Your task to perform on an android device: Open Yahoo.com Image 0: 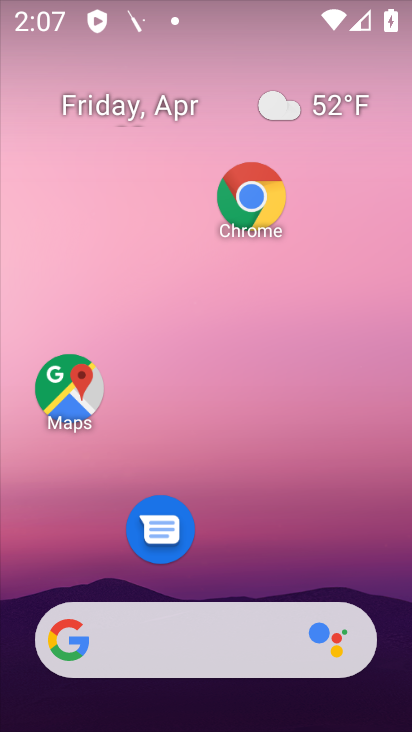
Step 0: click (252, 216)
Your task to perform on an android device: Open Yahoo.com Image 1: 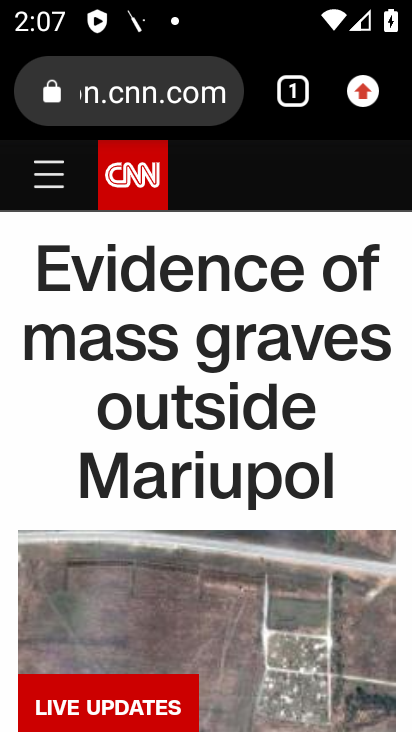
Step 1: click (292, 93)
Your task to perform on an android device: Open Yahoo.com Image 2: 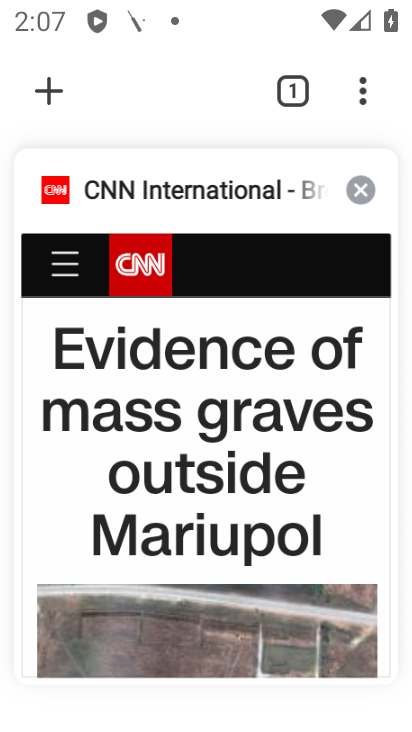
Step 2: click (43, 82)
Your task to perform on an android device: Open Yahoo.com Image 3: 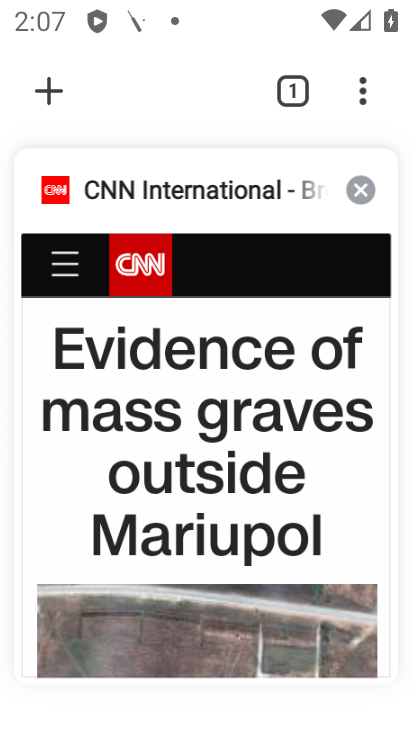
Step 3: click (41, 82)
Your task to perform on an android device: Open Yahoo.com Image 4: 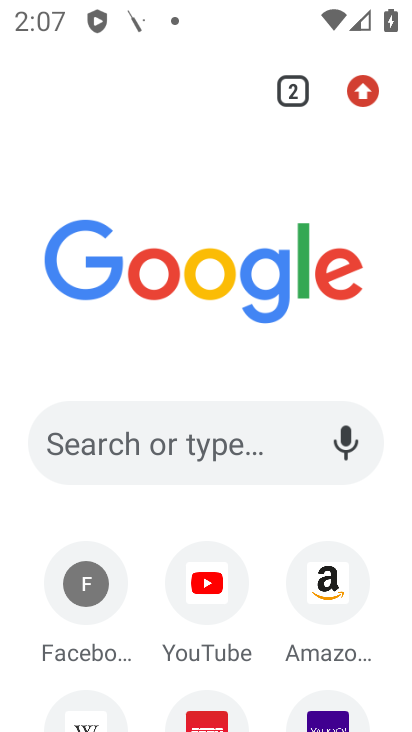
Step 4: drag from (264, 669) to (258, 408)
Your task to perform on an android device: Open Yahoo.com Image 5: 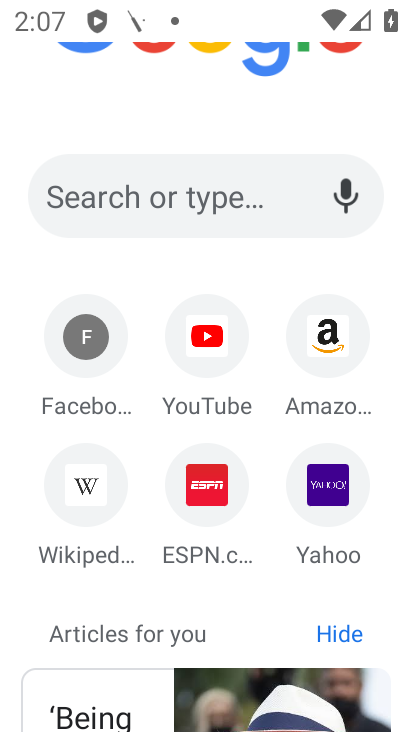
Step 5: click (331, 503)
Your task to perform on an android device: Open Yahoo.com Image 6: 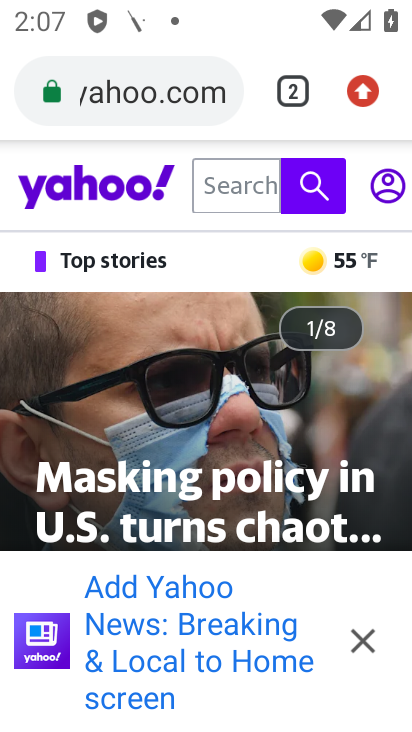
Step 6: task complete